Your task to perform on an android device: delete the emails in spam in the gmail app Image 0: 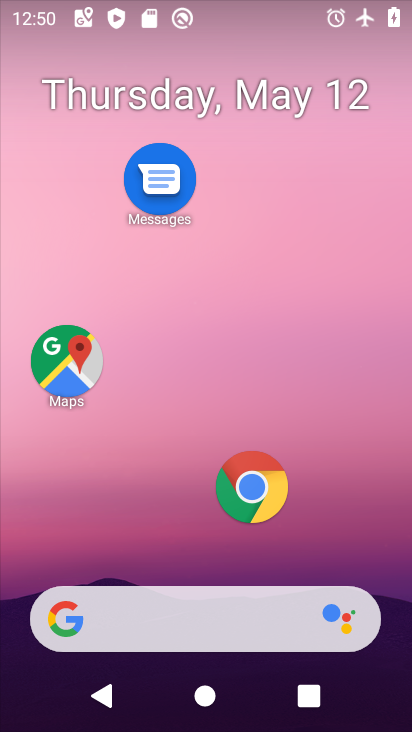
Step 0: press home button
Your task to perform on an android device: delete the emails in spam in the gmail app Image 1: 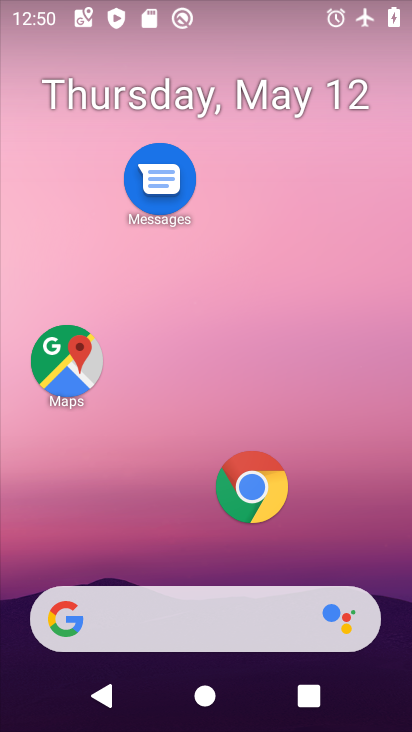
Step 1: drag from (212, 555) to (181, 125)
Your task to perform on an android device: delete the emails in spam in the gmail app Image 2: 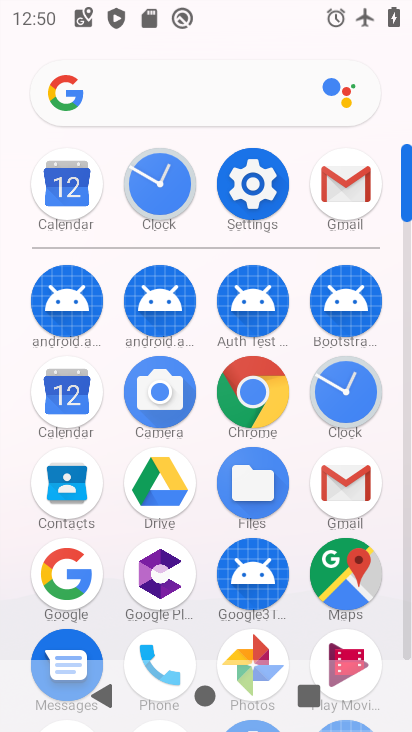
Step 2: click (333, 208)
Your task to perform on an android device: delete the emails in spam in the gmail app Image 3: 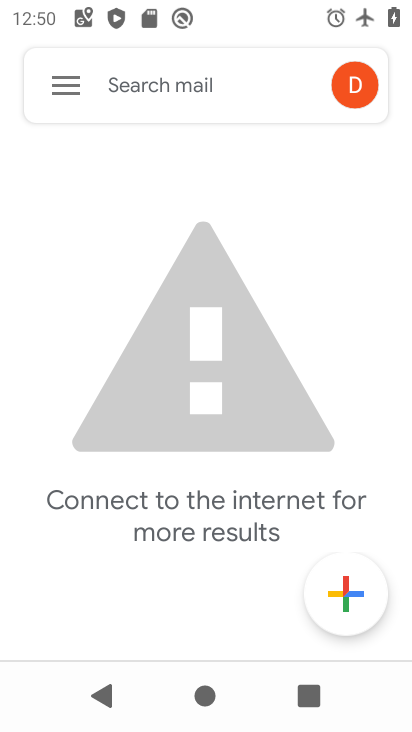
Step 3: click (62, 100)
Your task to perform on an android device: delete the emails in spam in the gmail app Image 4: 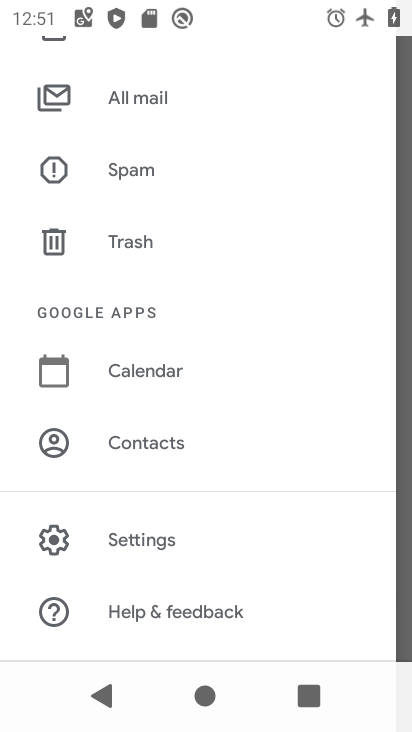
Step 4: click (148, 176)
Your task to perform on an android device: delete the emails in spam in the gmail app Image 5: 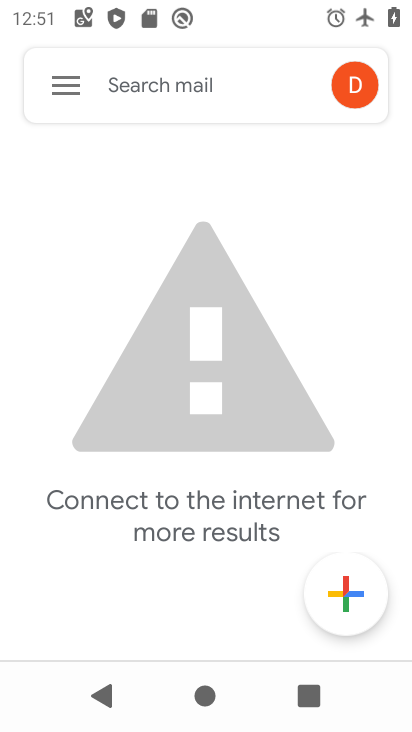
Step 5: task complete